Your task to perform on an android device: turn on improve location accuracy Image 0: 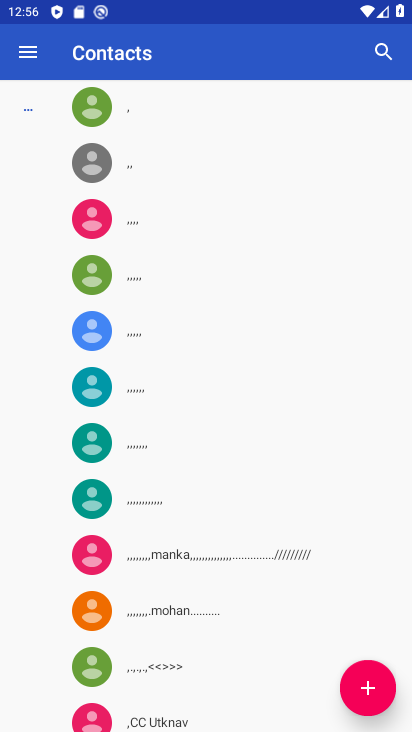
Step 0: press home button
Your task to perform on an android device: turn on improve location accuracy Image 1: 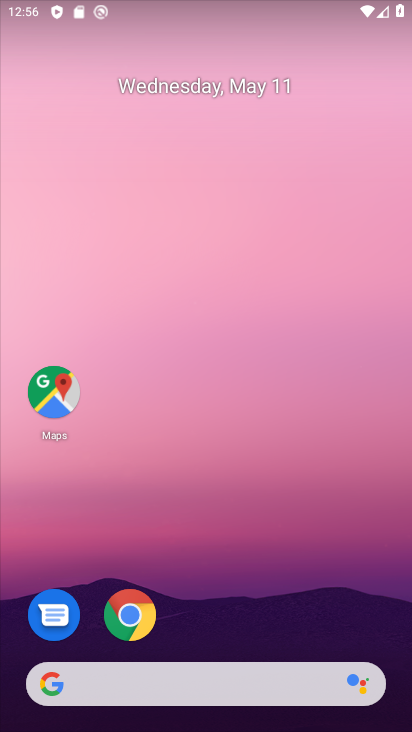
Step 1: drag from (375, 592) to (380, 140)
Your task to perform on an android device: turn on improve location accuracy Image 2: 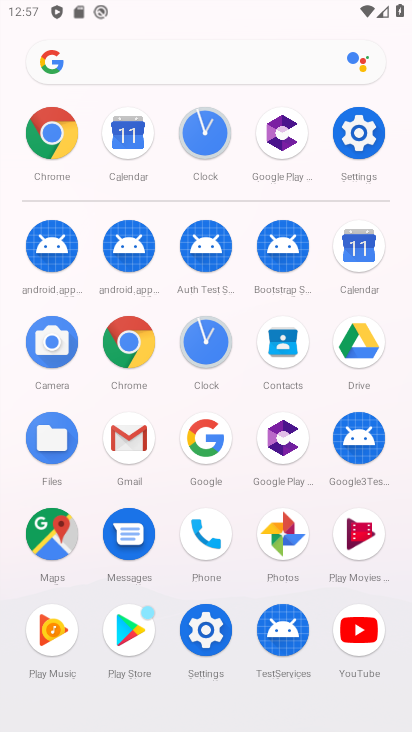
Step 2: click (215, 640)
Your task to perform on an android device: turn on improve location accuracy Image 3: 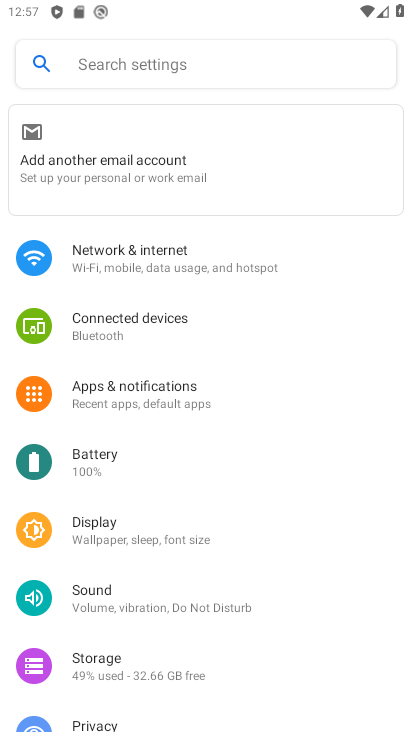
Step 3: drag from (227, 673) to (270, 421)
Your task to perform on an android device: turn on improve location accuracy Image 4: 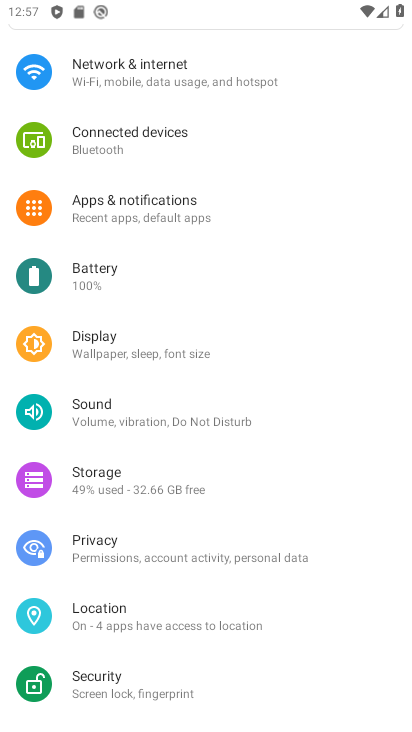
Step 4: click (211, 622)
Your task to perform on an android device: turn on improve location accuracy Image 5: 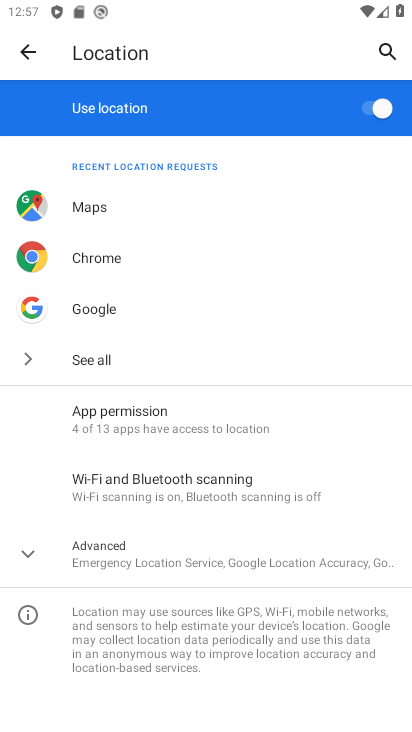
Step 5: click (208, 556)
Your task to perform on an android device: turn on improve location accuracy Image 6: 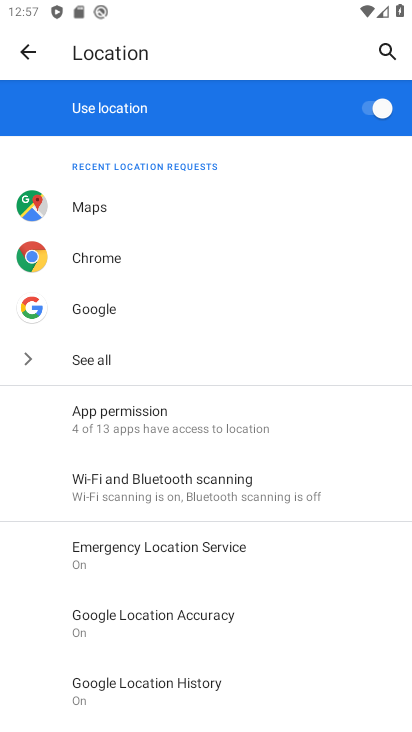
Step 6: click (208, 615)
Your task to perform on an android device: turn on improve location accuracy Image 7: 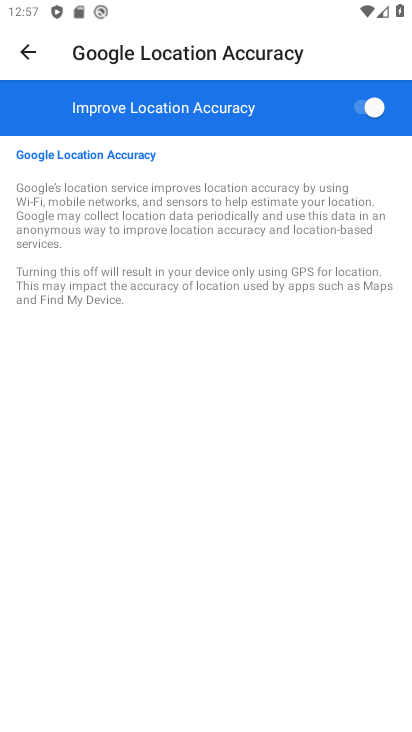
Step 7: task complete